Your task to perform on an android device: Play the last video I watched on Youtube Image 0: 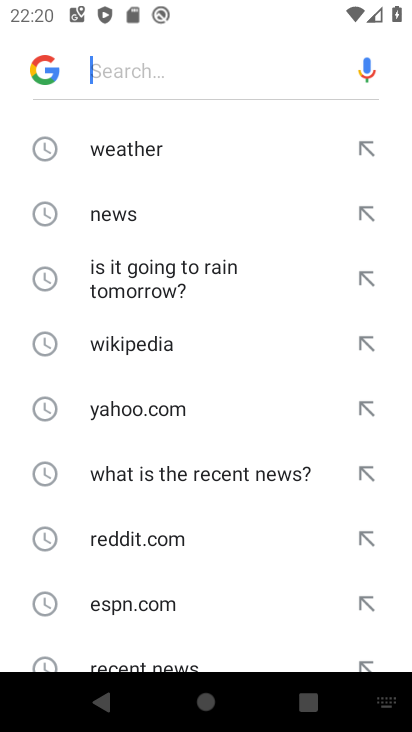
Step 0: press home button
Your task to perform on an android device: Play the last video I watched on Youtube Image 1: 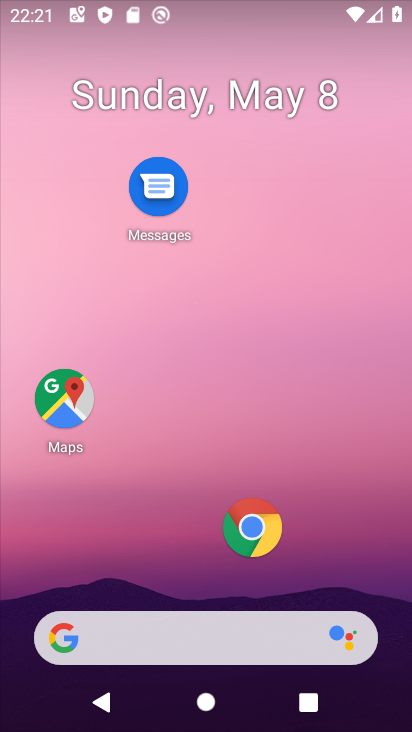
Step 1: drag from (179, 555) to (207, 40)
Your task to perform on an android device: Play the last video I watched on Youtube Image 2: 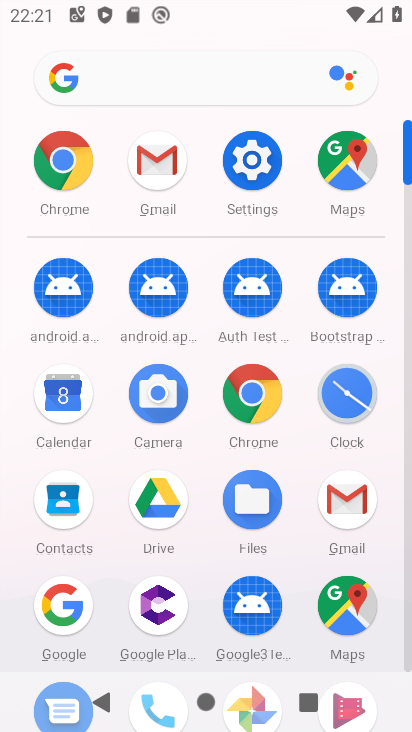
Step 2: drag from (198, 562) to (239, 36)
Your task to perform on an android device: Play the last video I watched on Youtube Image 3: 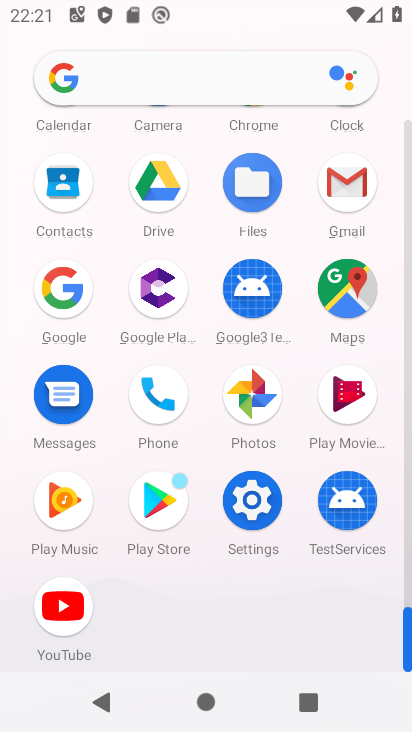
Step 3: click (58, 609)
Your task to perform on an android device: Play the last video I watched on Youtube Image 4: 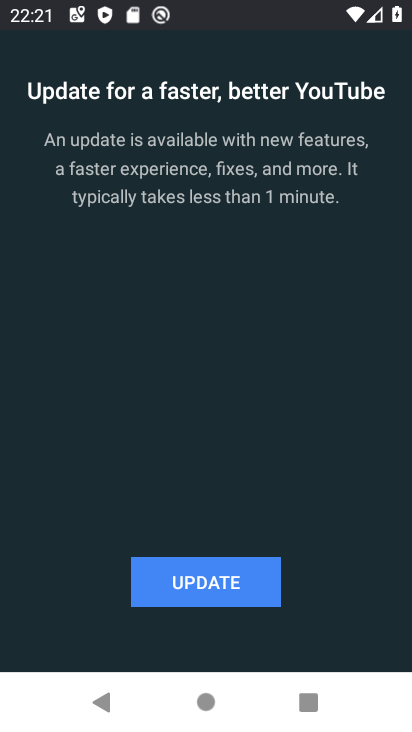
Step 4: click (208, 585)
Your task to perform on an android device: Play the last video I watched on Youtube Image 5: 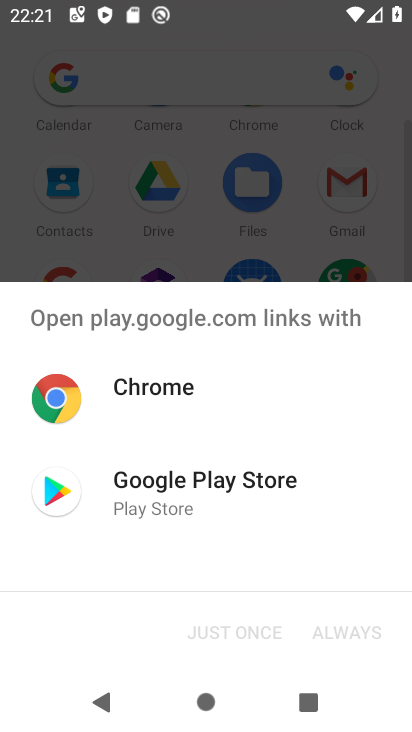
Step 5: click (130, 476)
Your task to perform on an android device: Play the last video I watched on Youtube Image 6: 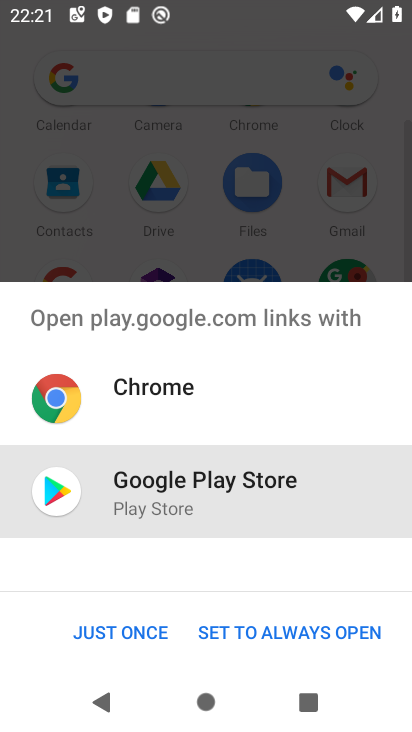
Step 6: click (136, 626)
Your task to perform on an android device: Play the last video I watched on Youtube Image 7: 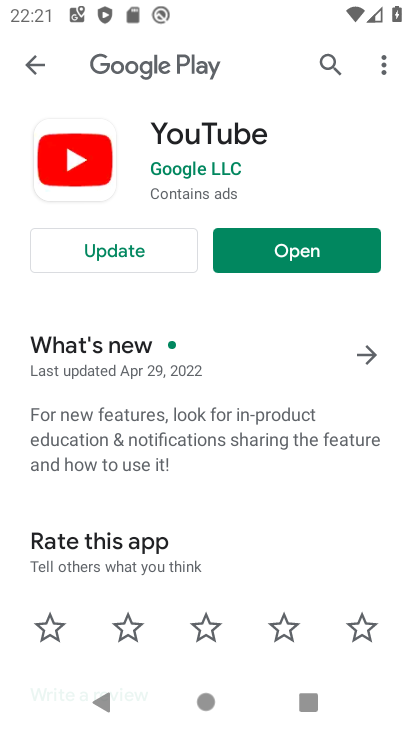
Step 7: click (114, 255)
Your task to perform on an android device: Play the last video I watched on Youtube Image 8: 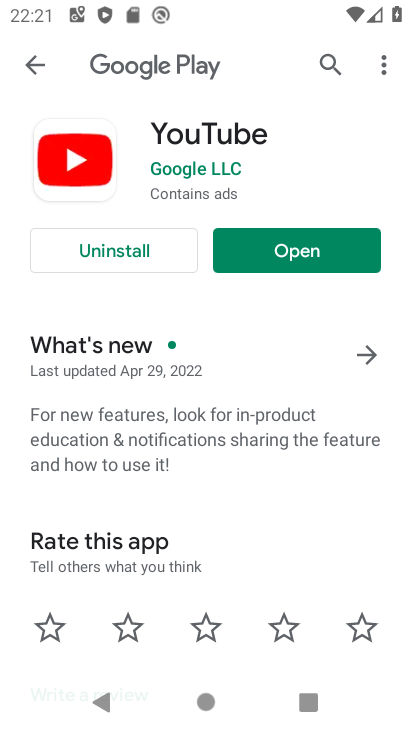
Step 8: click (253, 250)
Your task to perform on an android device: Play the last video I watched on Youtube Image 9: 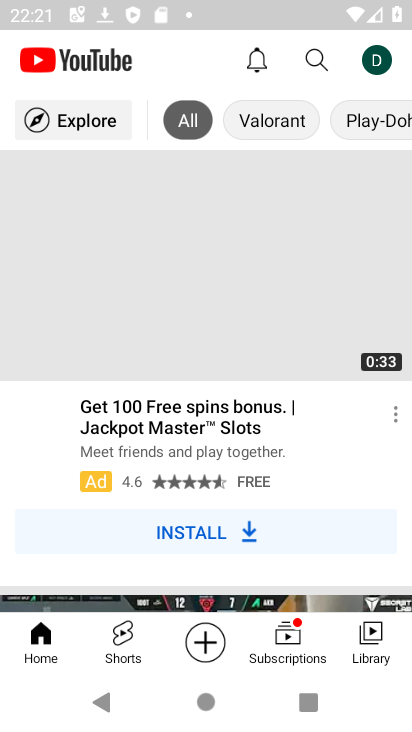
Step 9: click (315, 60)
Your task to perform on an android device: Play the last video I watched on Youtube Image 10: 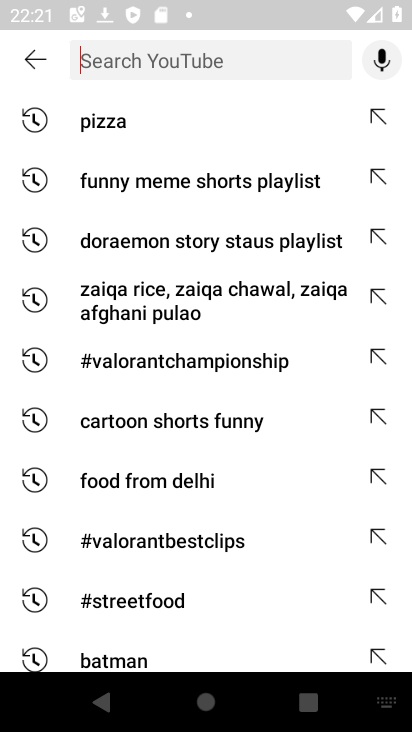
Step 10: task complete